Your task to perform on an android device: empty trash in google photos Image 0: 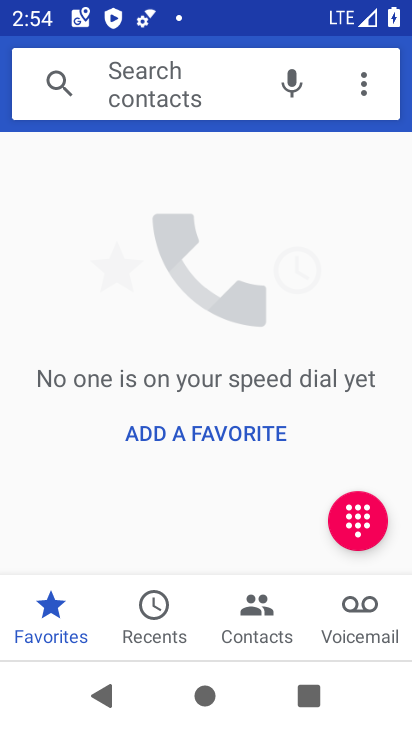
Step 0: press home button
Your task to perform on an android device: empty trash in google photos Image 1: 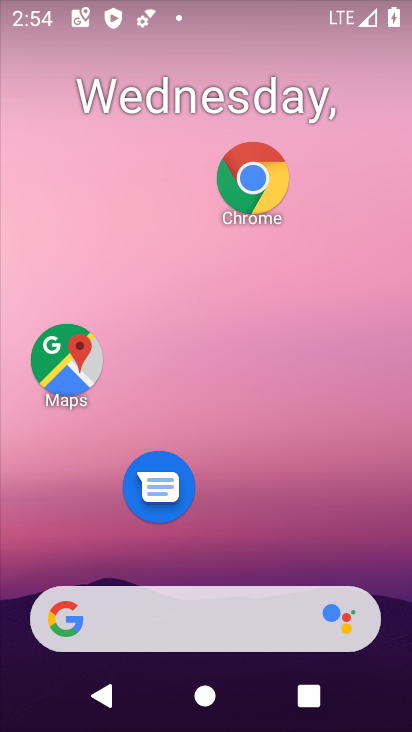
Step 1: drag from (263, 505) to (375, 74)
Your task to perform on an android device: empty trash in google photos Image 2: 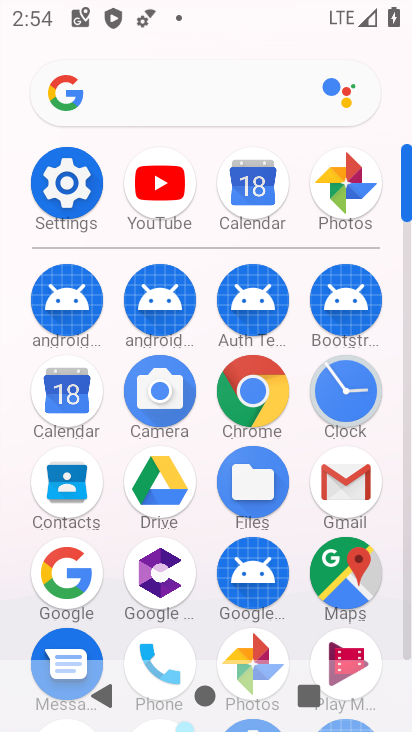
Step 2: click (329, 199)
Your task to perform on an android device: empty trash in google photos Image 3: 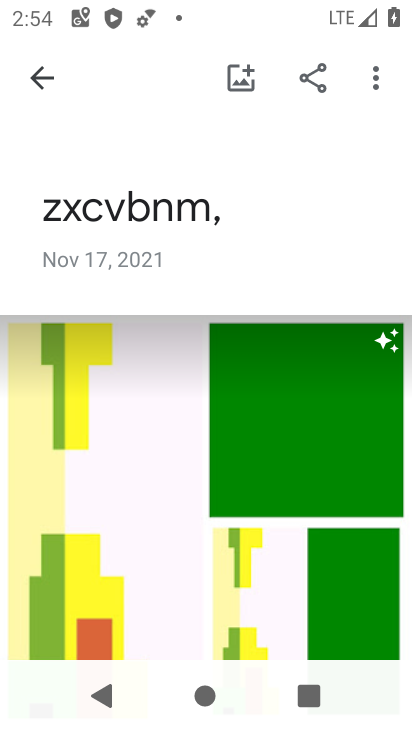
Step 3: click (46, 87)
Your task to perform on an android device: empty trash in google photos Image 4: 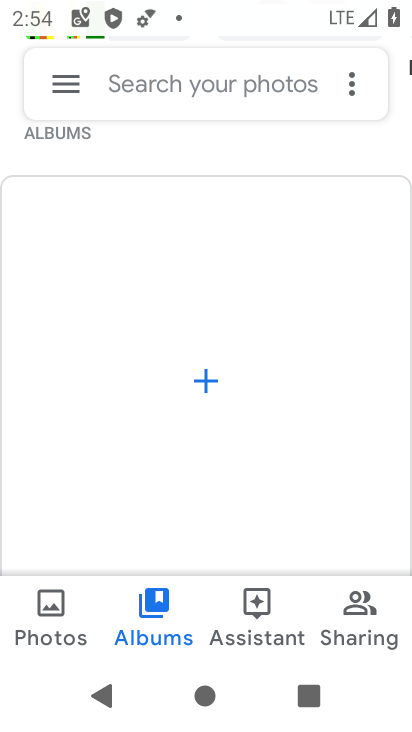
Step 4: click (57, 82)
Your task to perform on an android device: empty trash in google photos Image 5: 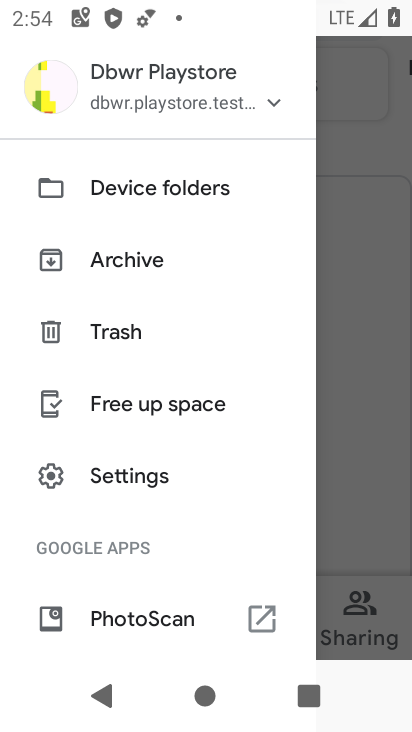
Step 5: click (118, 335)
Your task to perform on an android device: empty trash in google photos Image 6: 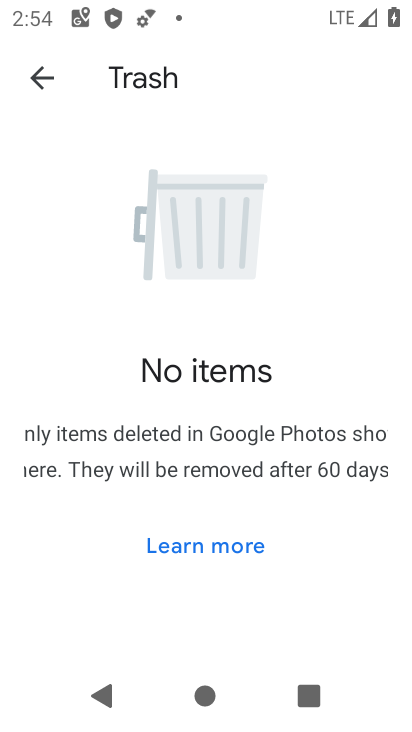
Step 6: task complete